Your task to perform on an android device: Clear the shopping cart on bestbuy. Search for bose quietcomfort 35 on bestbuy, select the first entry, and add it to the cart. Image 0: 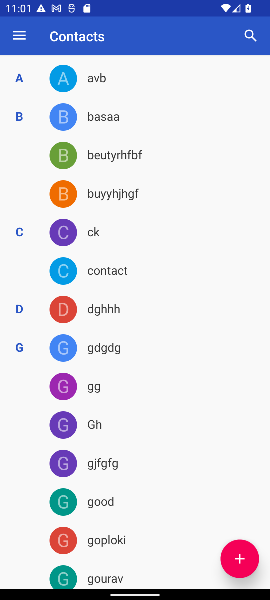
Step 0: press home button
Your task to perform on an android device: Clear the shopping cart on bestbuy. Search for bose quietcomfort 35 on bestbuy, select the first entry, and add it to the cart. Image 1: 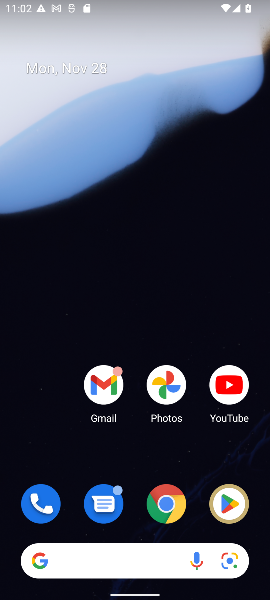
Step 1: click (170, 507)
Your task to perform on an android device: Clear the shopping cart on bestbuy. Search for bose quietcomfort 35 on bestbuy, select the first entry, and add it to the cart. Image 2: 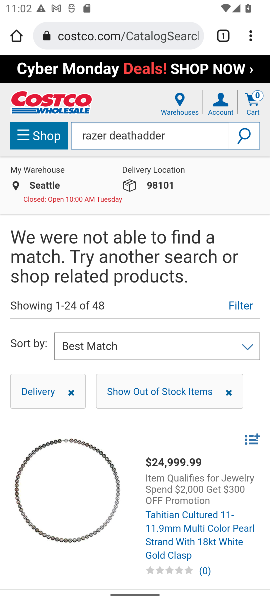
Step 2: click (116, 36)
Your task to perform on an android device: Clear the shopping cart on bestbuy. Search for bose quietcomfort 35 on bestbuy, select the first entry, and add it to the cart. Image 3: 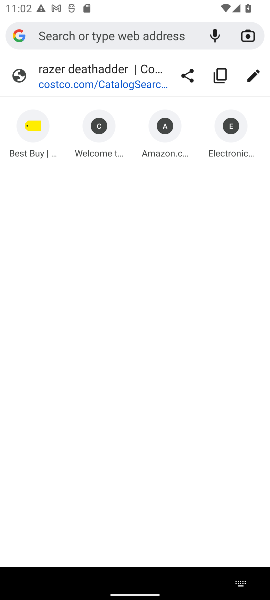
Step 3: click (21, 154)
Your task to perform on an android device: Clear the shopping cart on bestbuy. Search for bose quietcomfort 35 on bestbuy, select the first entry, and add it to the cart. Image 4: 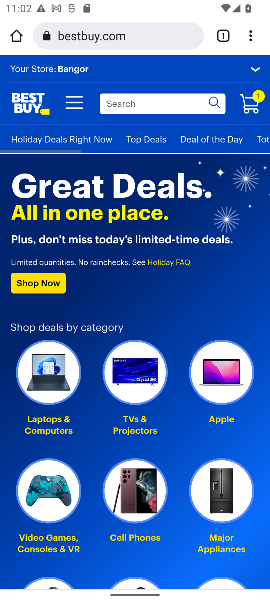
Step 4: click (250, 97)
Your task to perform on an android device: Clear the shopping cart on bestbuy. Search for bose quietcomfort 35 on bestbuy, select the first entry, and add it to the cart. Image 5: 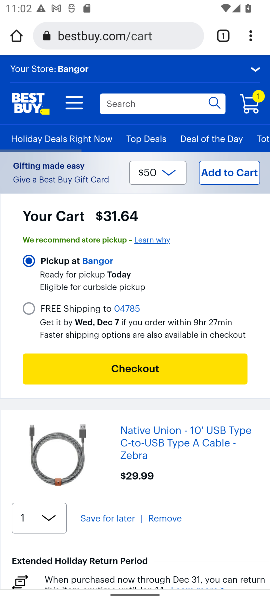
Step 5: click (165, 518)
Your task to perform on an android device: Clear the shopping cart on bestbuy. Search for bose quietcomfort 35 on bestbuy, select the first entry, and add it to the cart. Image 6: 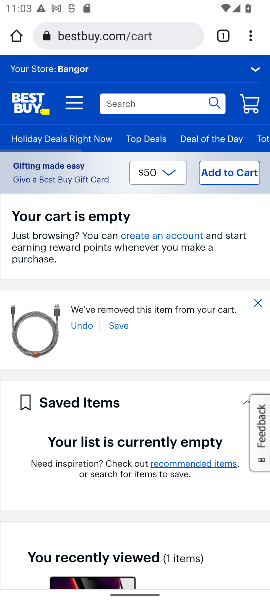
Step 6: click (125, 106)
Your task to perform on an android device: Clear the shopping cart on bestbuy. Search for bose quietcomfort 35 on bestbuy, select the first entry, and add it to the cart. Image 7: 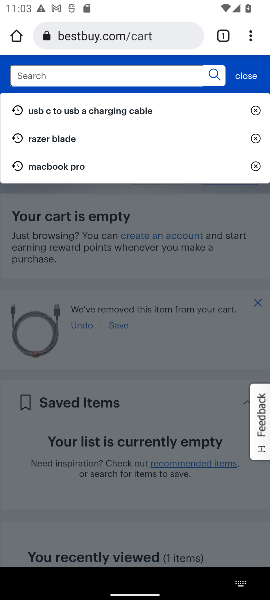
Step 7: type "bose quietcomfort 35"
Your task to perform on an android device: Clear the shopping cart on bestbuy. Search for bose quietcomfort 35 on bestbuy, select the first entry, and add it to the cart. Image 8: 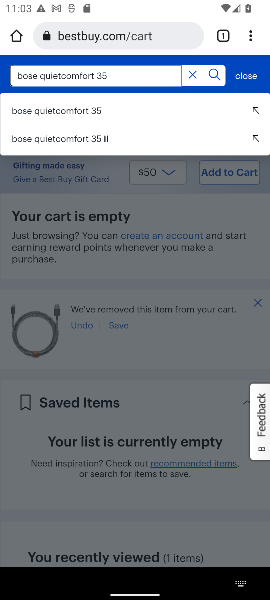
Step 8: click (69, 108)
Your task to perform on an android device: Clear the shopping cart on bestbuy. Search for bose quietcomfort 35 on bestbuy, select the first entry, and add it to the cart. Image 9: 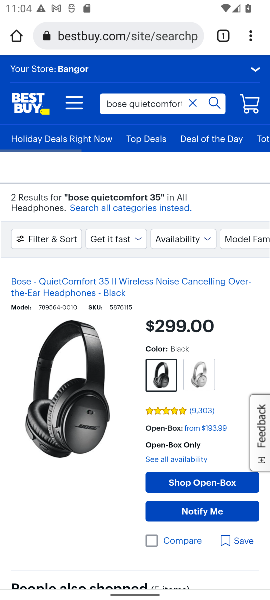
Step 9: drag from (112, 409) to (109, 282)
Your task to perform on an android device: Clear the shopping cart on bestbuy. Search for bose quietcomfort 35 on bestbuy, select the first entry, and add it to the cart. Image 10: 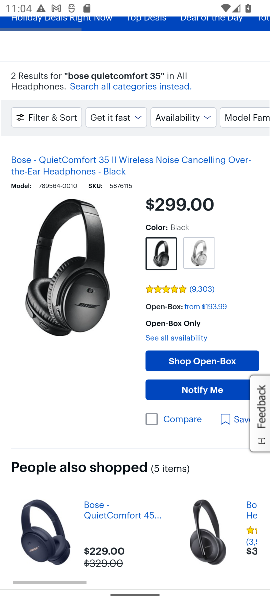
Step 10: click (180, 361)
Your task to perform on an android device: Clear the shopping cart on bestbuy. Search for bose quietcomfort 35 on bestbuy, select the first entry, and add it to the cart. Image 11: 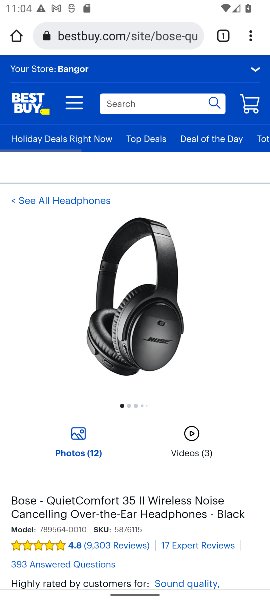
Step 11: task complete